Your task to perform on an android device: turn on sleep mode Image 0: 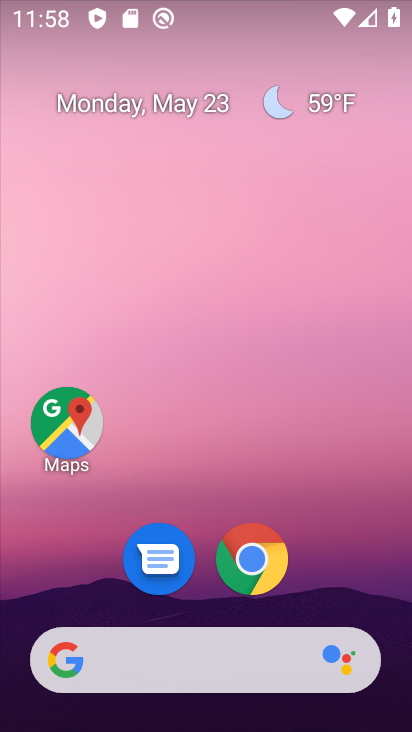
Step 0: drag from (373, 624) to (286, 61)
Your task to perform on an android device: turn on sleep mode Image 1: 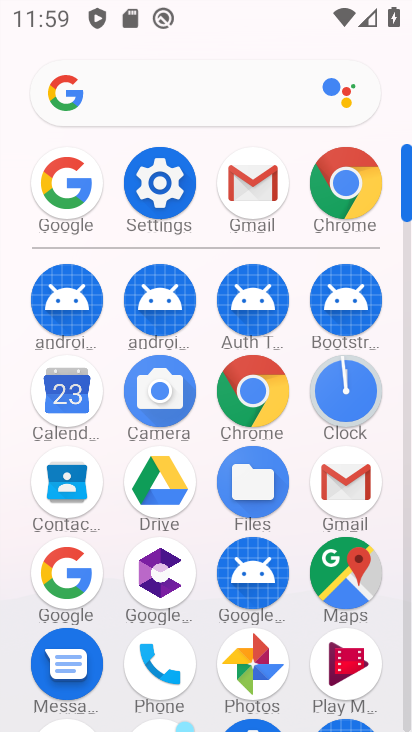
Step 1: click (146, 192)
Your task to perform on an android device: turn on sleep mode Image 2: 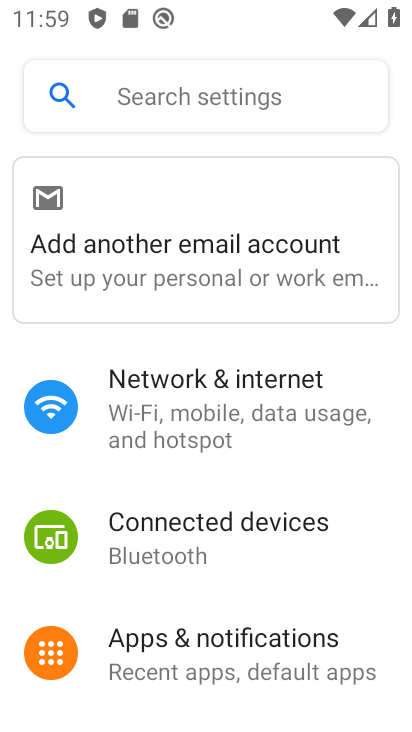
Step 2: task complete